Your task to perform on an android device: Search for Mexican restaurants on Maps Image 0: 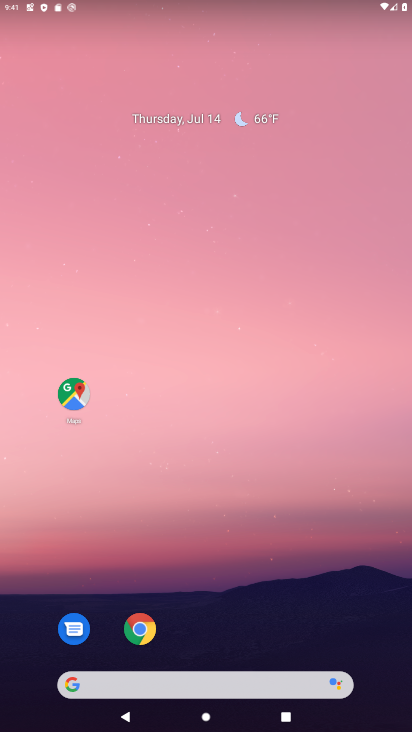
Step 0: press home button
Your task to perform on an android device: Search for Mexican restaurants on Maps Image 1: 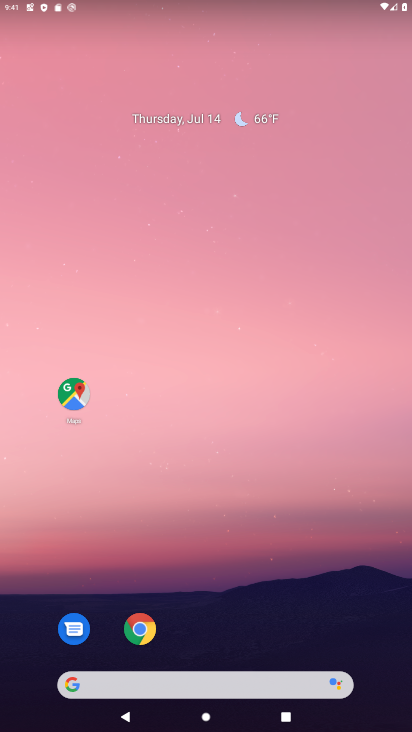
Step 1: click (81, 392)
Your task to perform on an android device: Search for Mexican restaurants on Maps Image 2: 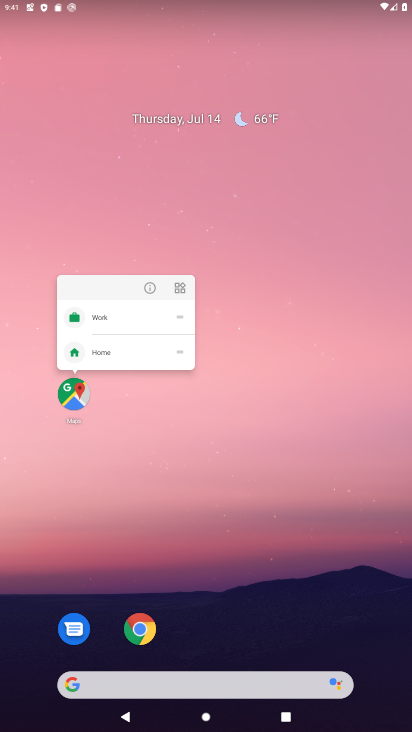
Step 2: click (62, 402)
Your task to perform on an android device: Search for Mexican restaurants on Maps Image 3: 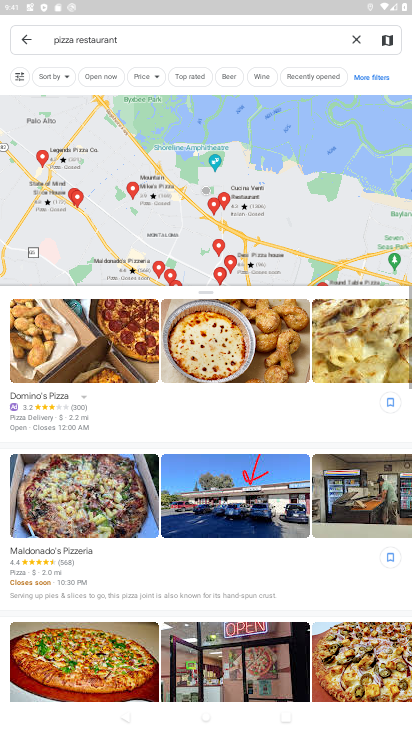
Step 3: click (351, 39)
Your task to perform on an android device: Search for Mexican restaurants on Maps Image 4: 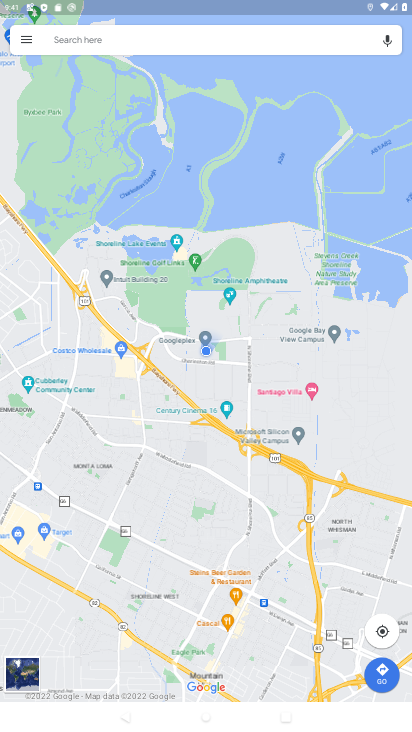
Step 4: type " Mexican restaurants"
Your task to perform on an android device: Search for Mexican restaurants on Maps Image 5: 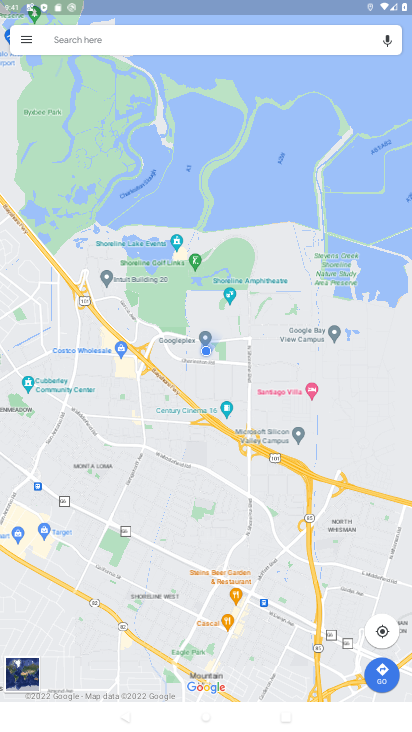
Step 5: click (86, 38)
Your task to perform on an android device: Search for Mexican restaurants on Maps Image 6: 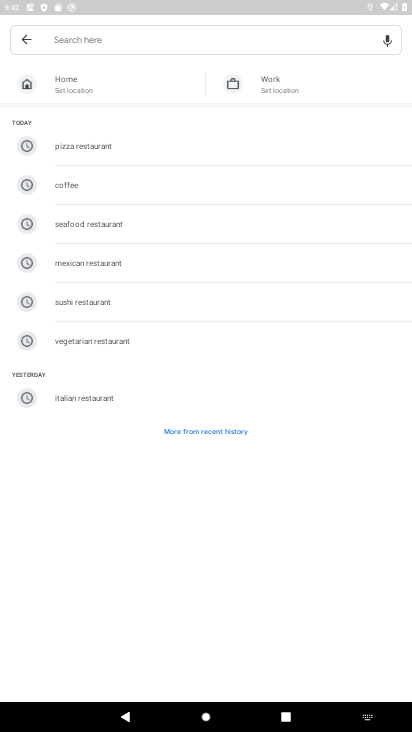
Step 6: click (92, 40)
Your task to perform on an android device: Search for Mexican restaurants on Maps Image 7: 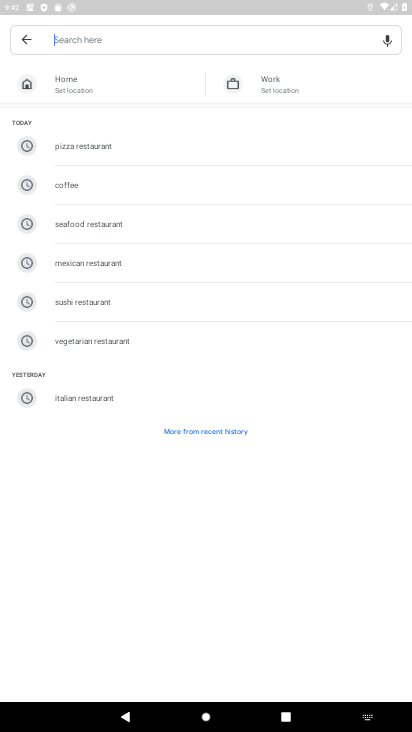
Step 7: type " Mexican restaurants"
Your task to perform on an android device: Search for Mexican restaurants on Maps Image 8: 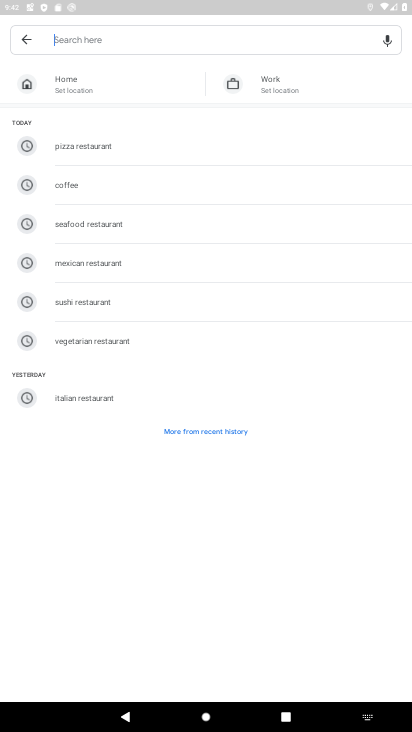
Step 8: click (98, 40)
Your task to perform on an android device: Search for Mexican restaurants on Maps Image 9: 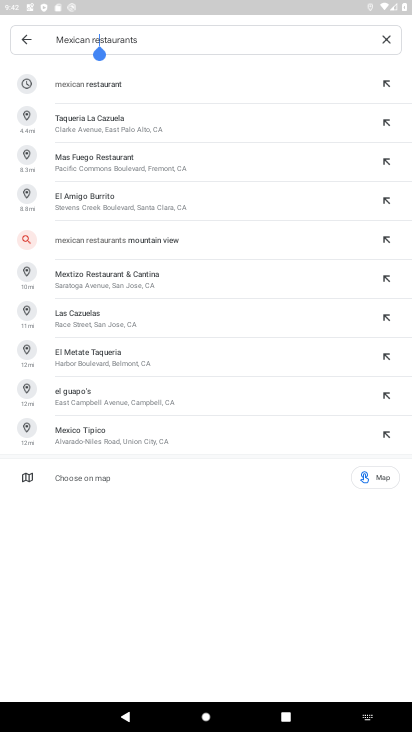
Step 9: press enter
Your task to perform on an android device: Search for Mexican restaurants on Maps Image 10: 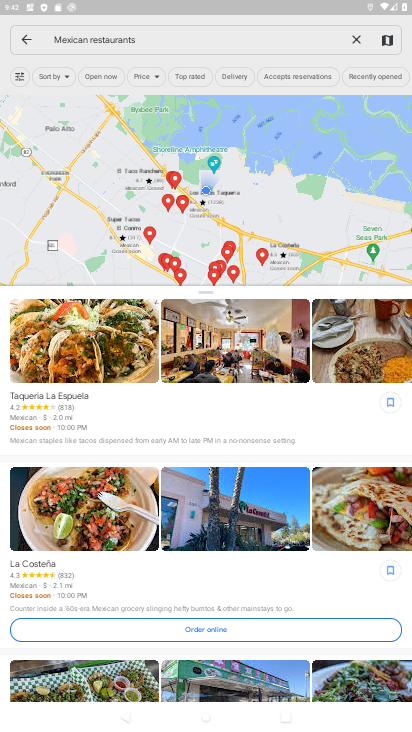
Step 10: task complete